Your task to perform on an android device: Open maps Image 0: 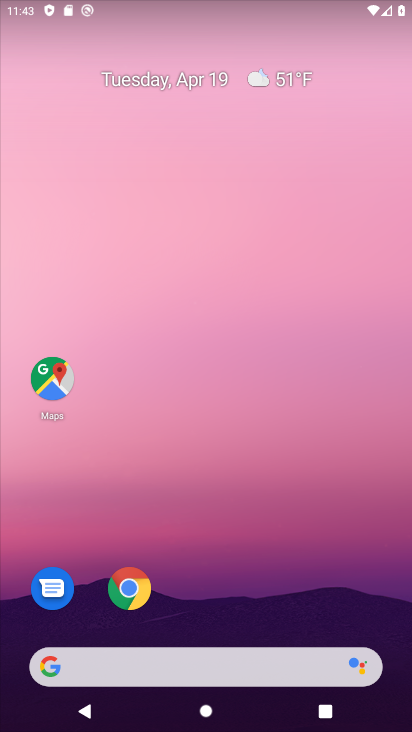
Step 0: drag from (196, 592) to (197, 141)
Your task to perform on an android device: Open maps Image 1: 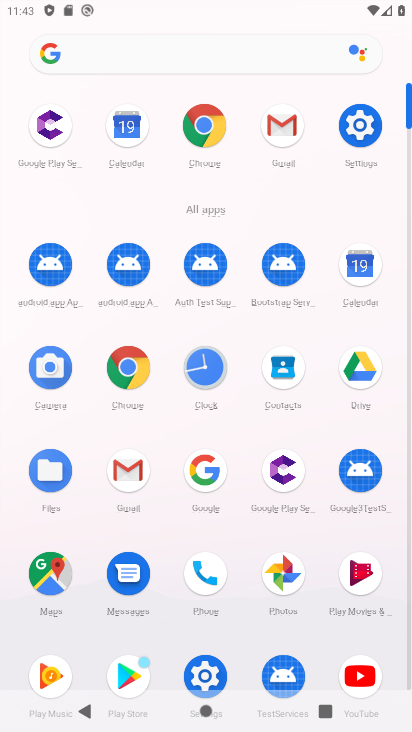
Step 1: click (54, 569)
Your task to perform on an android device: Open maps Image 2: 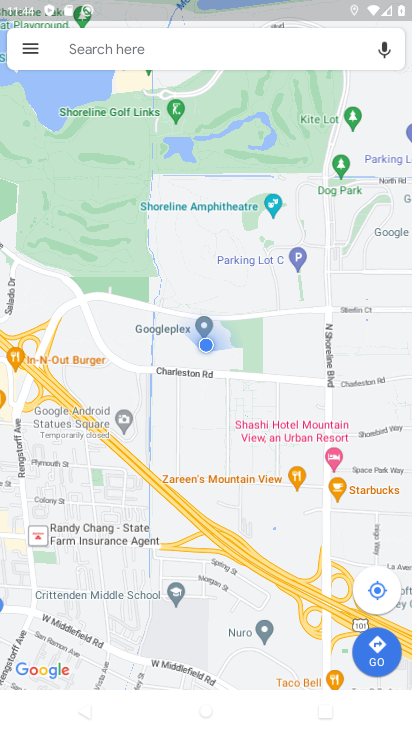
Step 2: task complete